Your task to perform on an android device: toggle javascript in the chrome app Image 0: 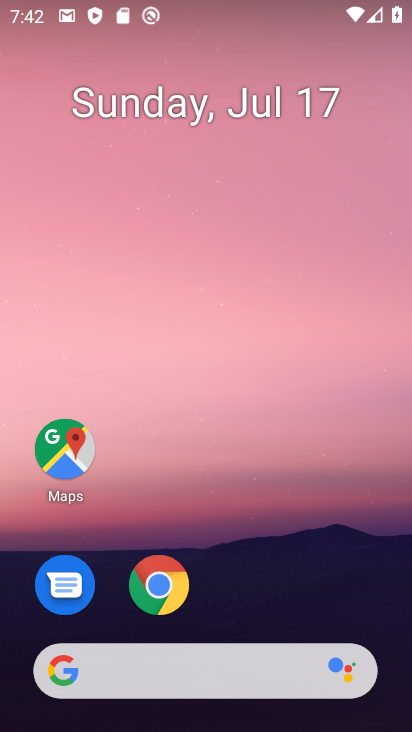
Step 0: click (165, 582)
Your task to perform on an android device: toggle javascript in the chrome app Image 1: 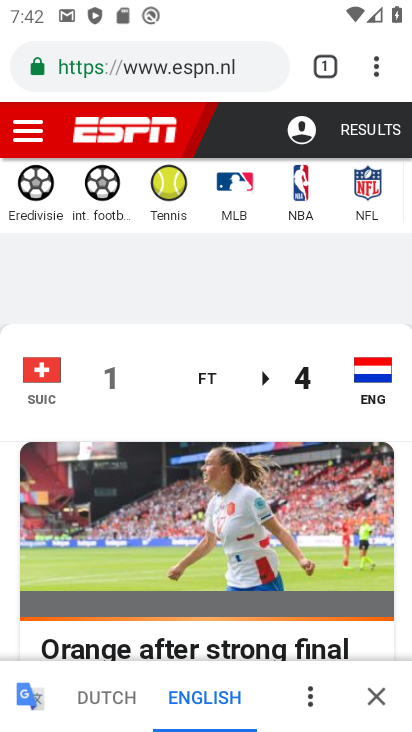
Step 1: drag from (372, 64) to (219, 579)
Your task to perform on an android device: toggle javascript in the chrome app Image 2: 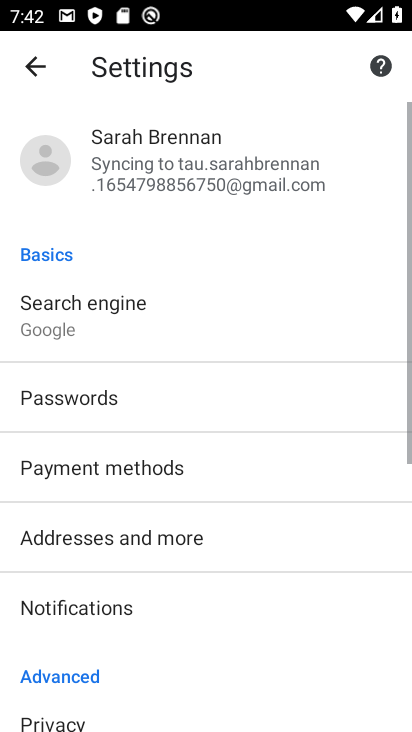
Step 2: drag from (239, 527) to (332, 134)
Your task to perform on an android device: toggle javascript in the chrome app Image 3: 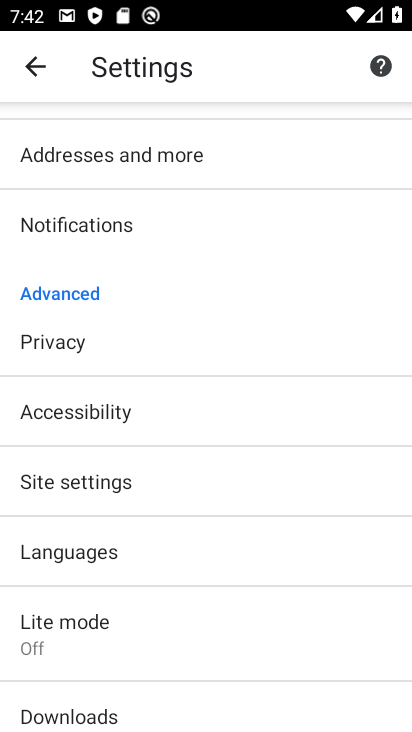
Step 3: click (125, 469)
Your task to perform on an android device: toggle javascript in the chrome app Image 4: 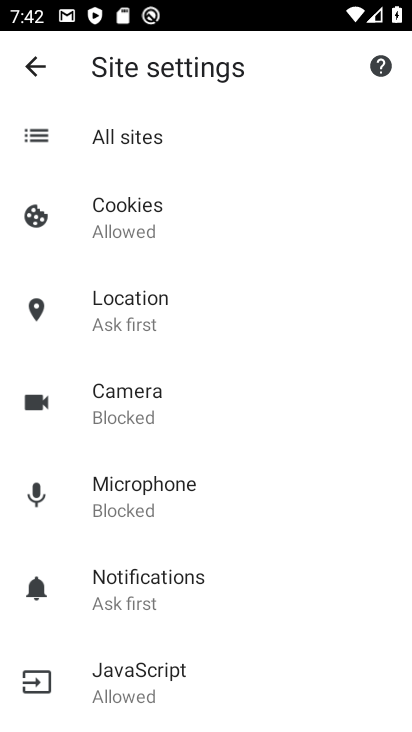
Step 4: click (160, 695)
Your task to perform on an android device: toggle javascript in the chrome app Image 5: 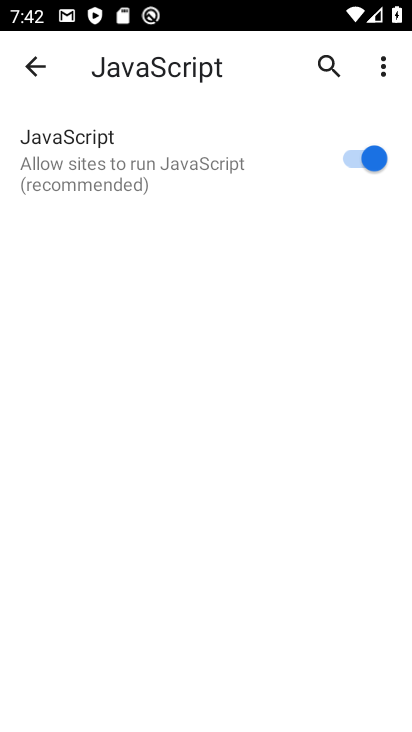
Step 5: click (357, 156)
Your task to perform on an android device: toggle javascript in the chrome app Image 6: 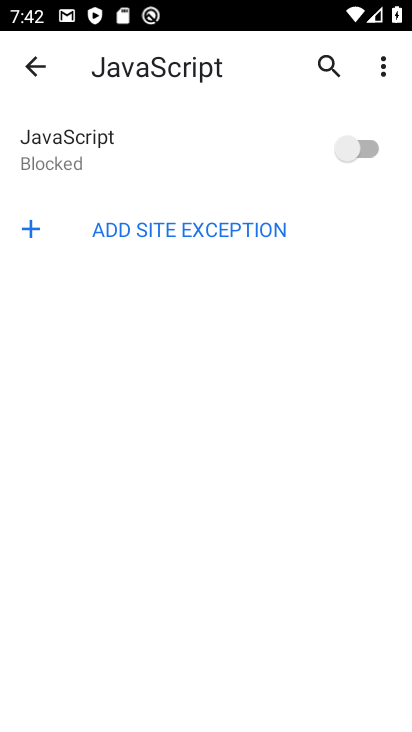
Step 6: task complete